Your task to perform on an android device: change the clock style Image 0: 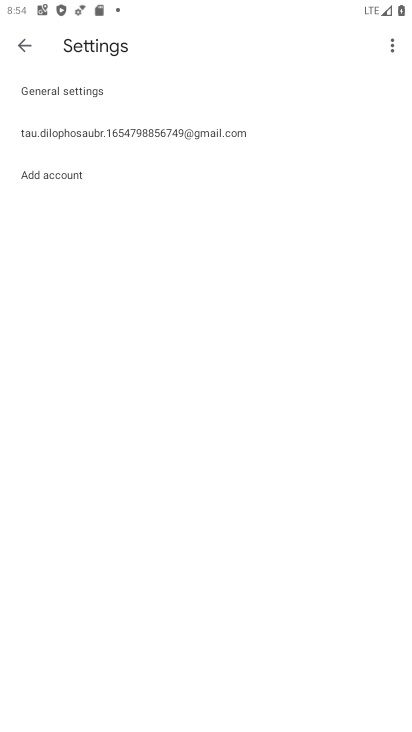
Step 0: press home button
Your task to perform on an android device: change the clock style Image 1: 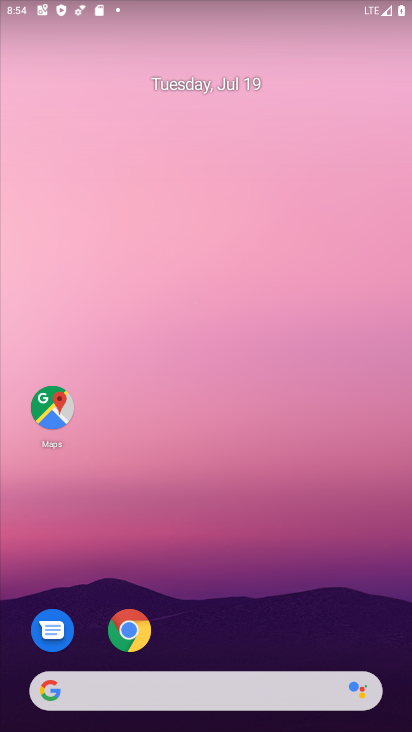
Step 1: drag from (211, 638) to (287, 51)
Your task to perform on an android device: change the clock style Image 2: 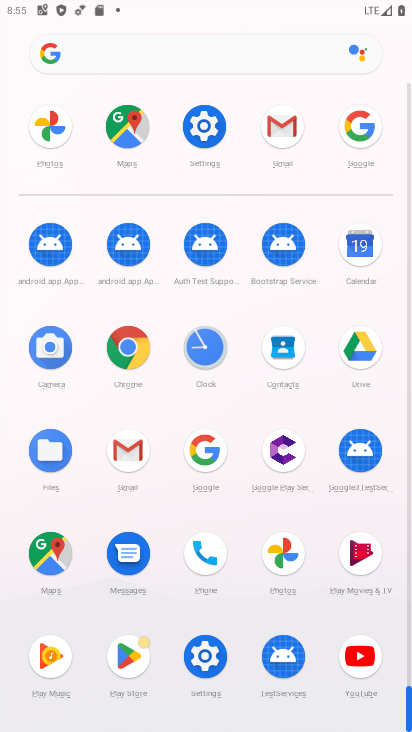
Step 2: click (208, 352)
Your task to perform on an android device: change the clock style Image 3: 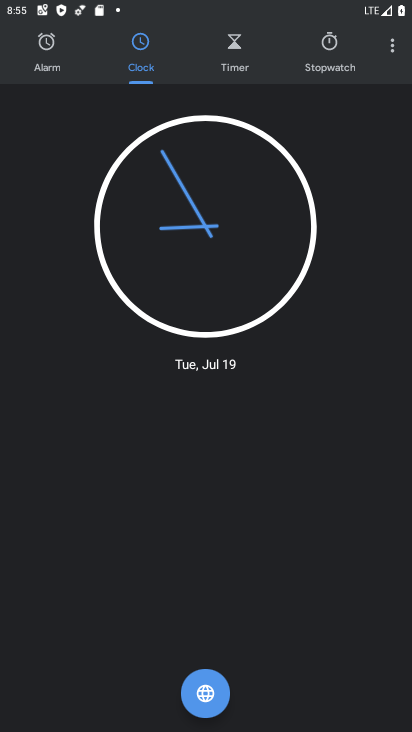
Step 3: click (389, 48)
Your task to perform on an android device: change the clock style Image 4: 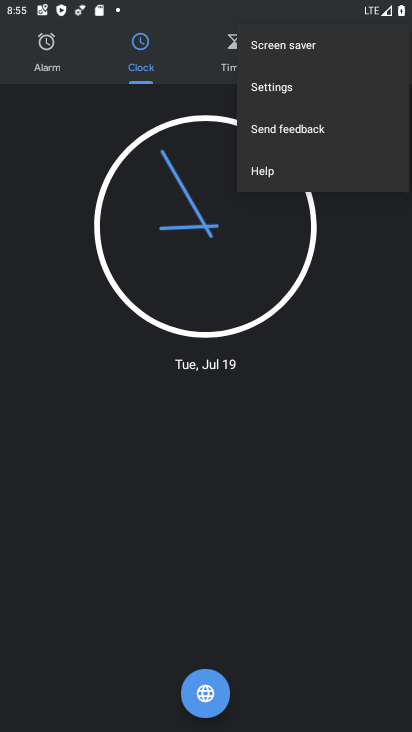
Step 4: click (285, 92)
Your task to perform on an android device: change the clock style Image 5: 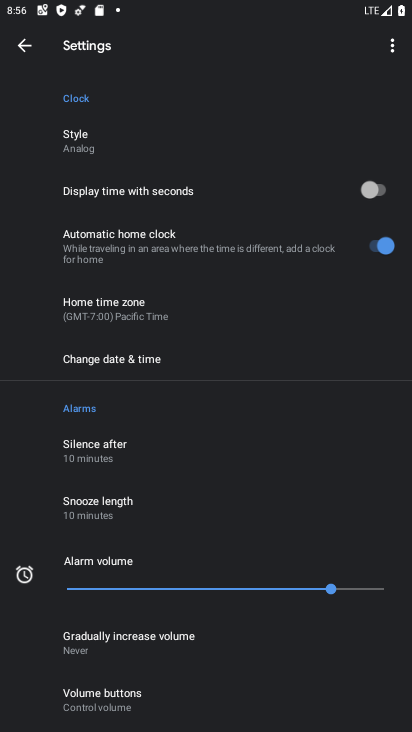
Step 5: click (140, 137)
Your task to perform on an android device: change the clock style Image 6: 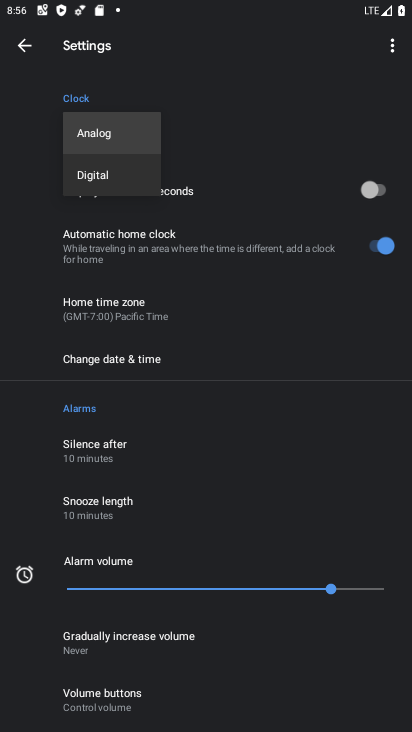
Step 6: click (111, 180)
Your task to perform on an android device: change the clock style Image 7: 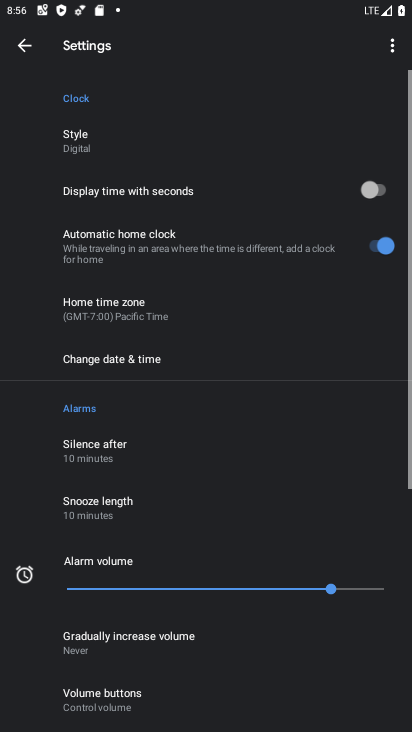
Step 7: task complete